Your task to perform on an android device: Is it going to rain today? Image 0: 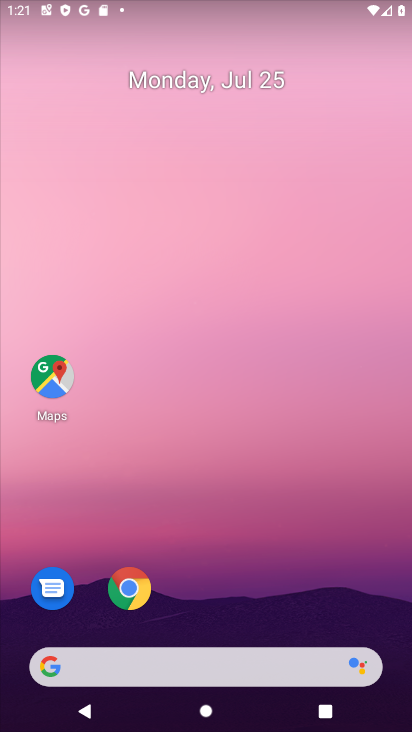
Step 0: drag from (215, 602) to (194, 202)
Your task to perform on an android device: Is it going to rain today? Image 1: 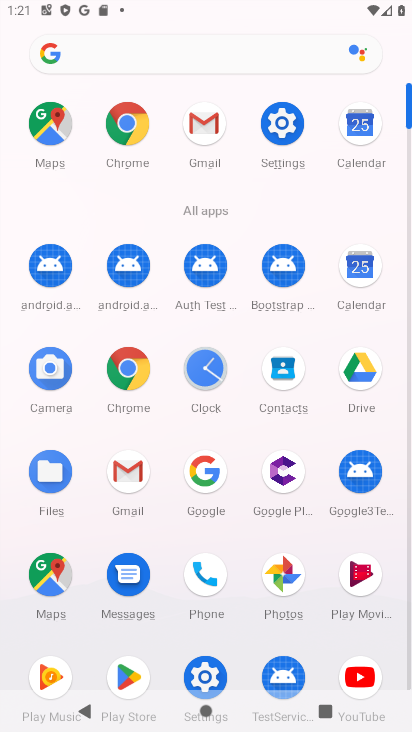
Step 1: click (218, 507)
Your task to perform on an android device: Is it going to rain today? Image 2: 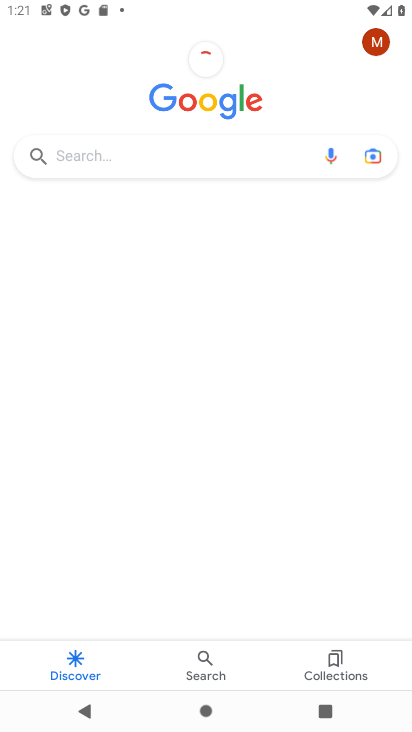
Step 2: click (170, 169)
Your task to perform on an android device: Is it going to rain today? Image 3: 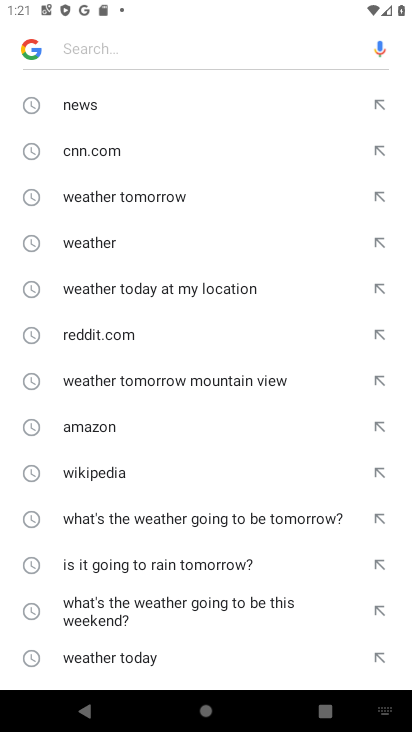
Step 3: click (82, 240)
Your task to perform on an android device: Is it going to rain today? Image 4: 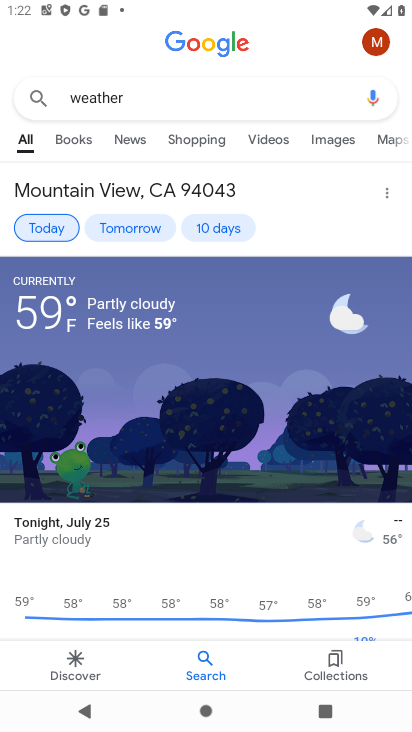
Step 4: drag from (167, 496) to (167, 350)
Your task to perform on an android device: Is it going to rain today? Image 5: 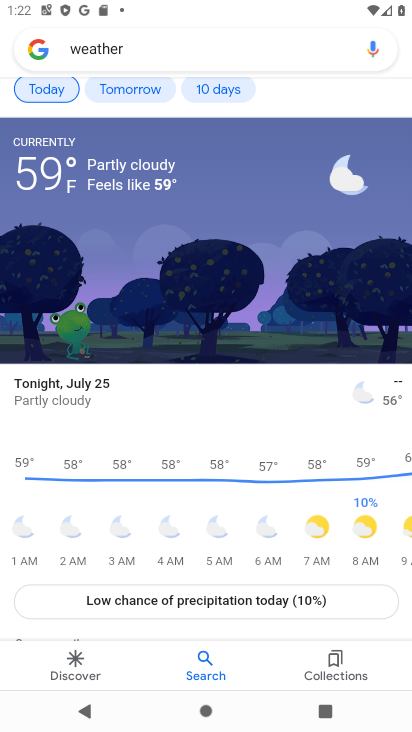
Step 5: drag from (301, 543) to (112, 524)
Your task to perform on an android device: Is it going to rain today? Image 6: 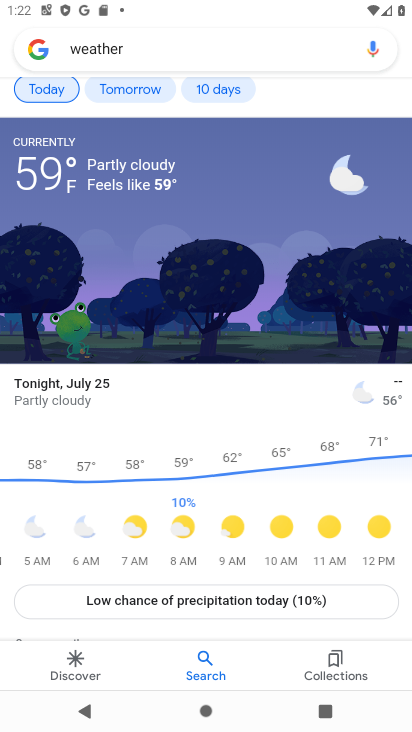
Step 6: drag from (254, 538) to (71, 538)
Your task to perform on an android device: Is it going to rain today? Image 7: 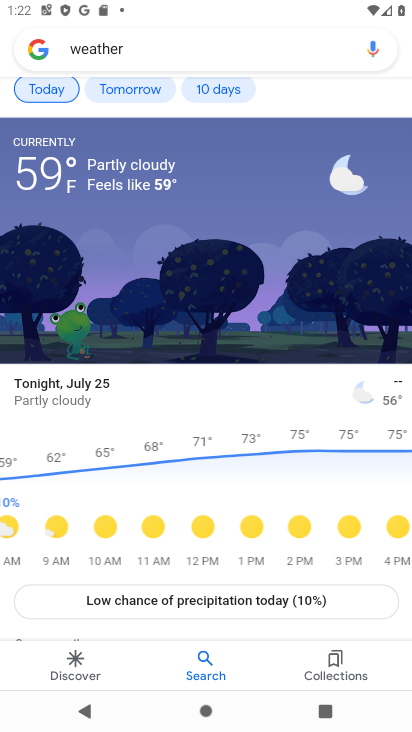
Step 7: drag from (347, 528) to (69, 540)
Your task to perform on an android device: Is it going to rain today? Image 8: 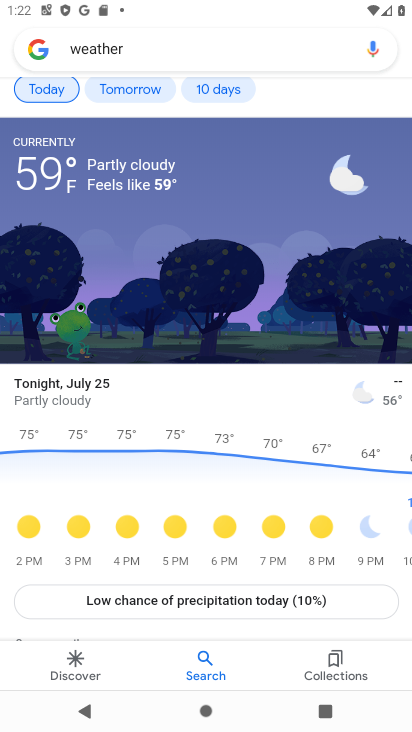
Step 8: click (66, 499)
Your task to perform on an android device: Is it going to rain today? Image 9: 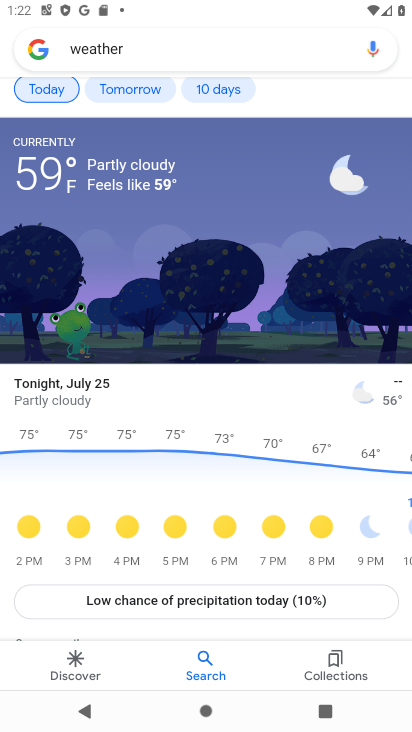
Step 9: click (34, 530)
Your task to perform on an android device: Is it going to rain today? Image 10: 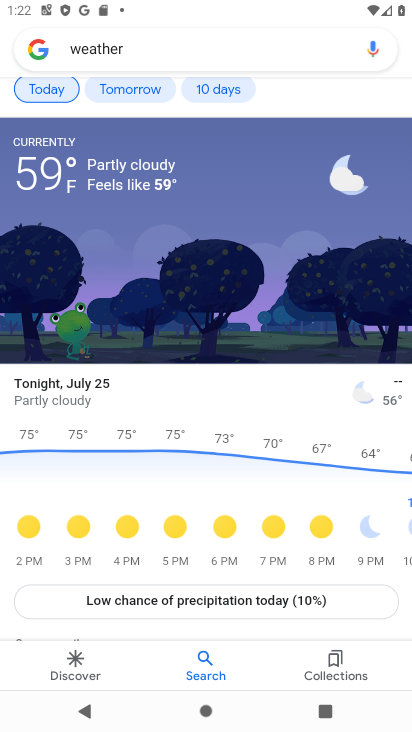
Step 10: task complete